Your task to perform on an android device: Add razer nari to the cart on ebay.com, then select checkout. Image 0: 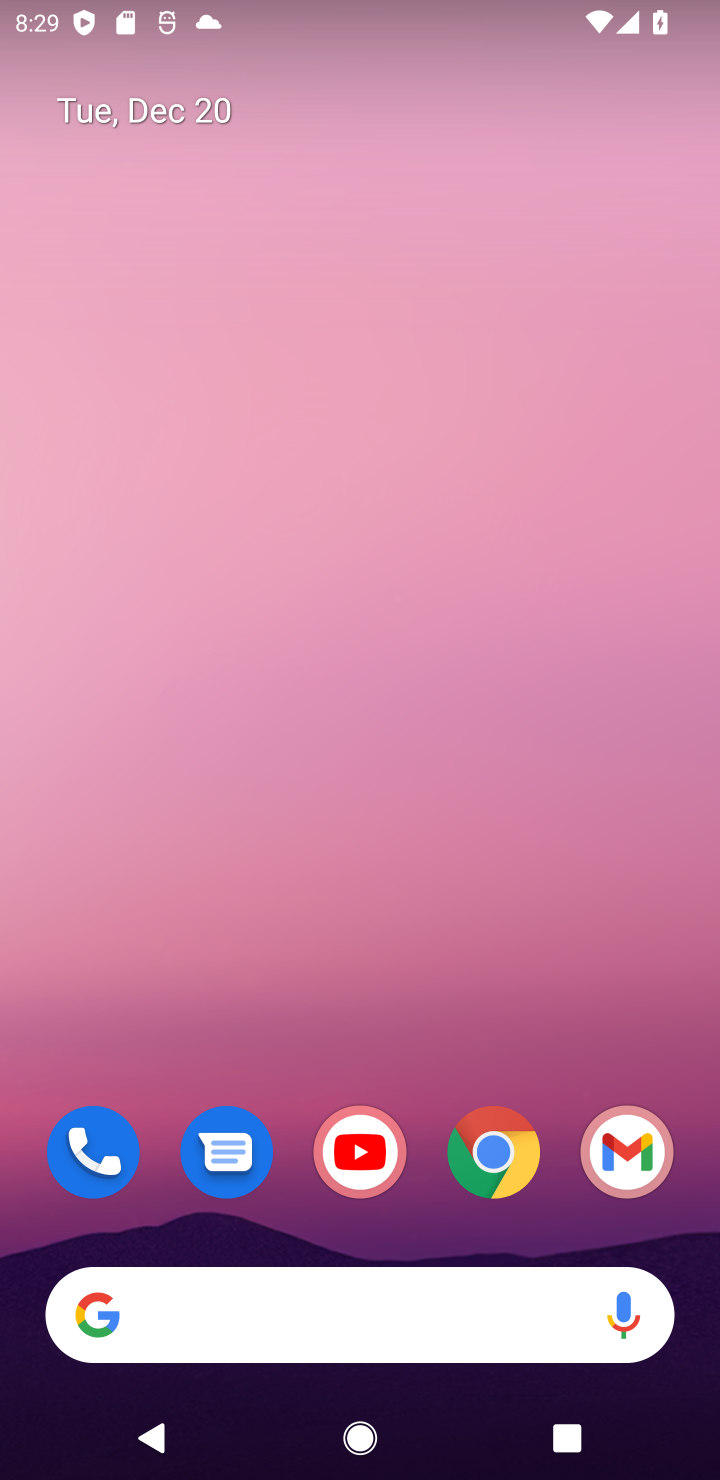
Step 0: click (494, 1176)
Your task to perform on an android device: Add razer nari to the cart on ebay.com, then select checkout. Image 1: 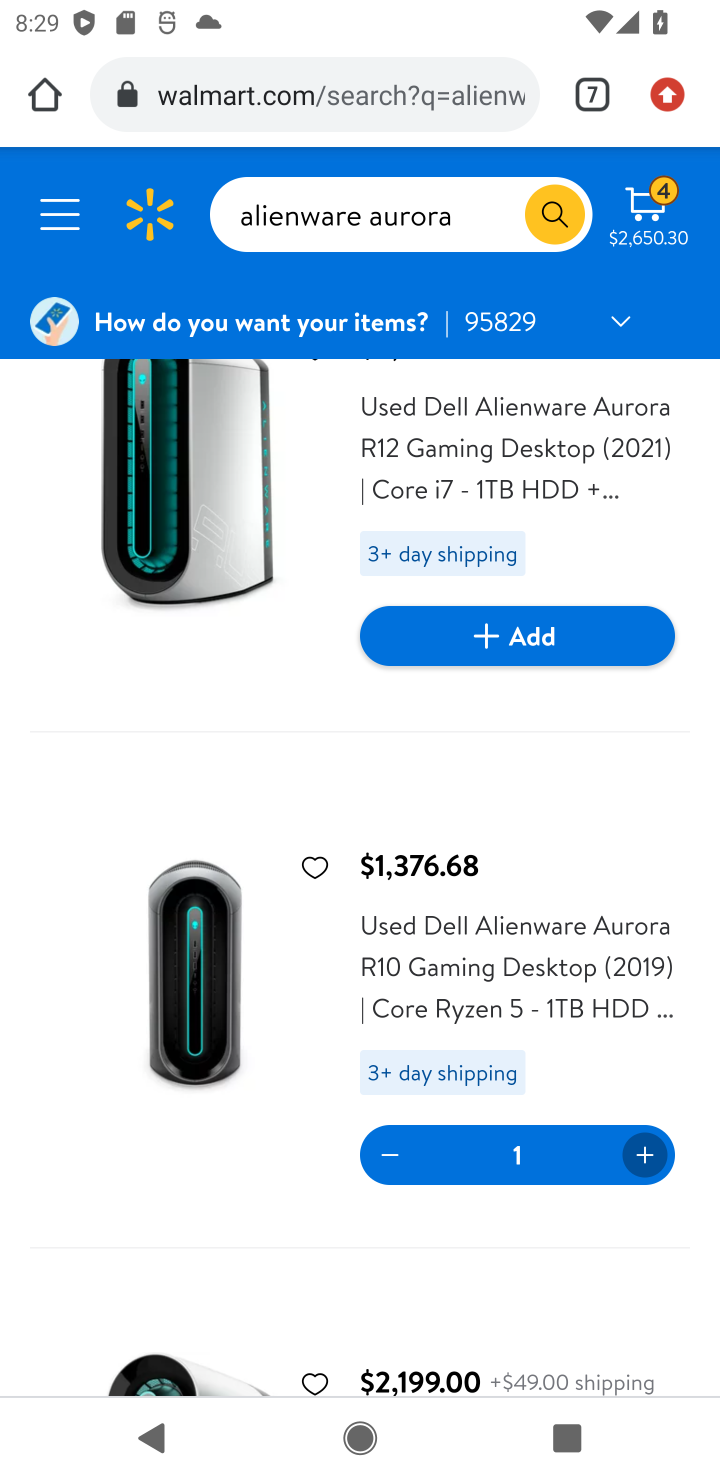
Step 1: click (594, 87)
Your task to perform on an android device: Add razer nari to the cart on ebay.com, then select checkout. Image 2: 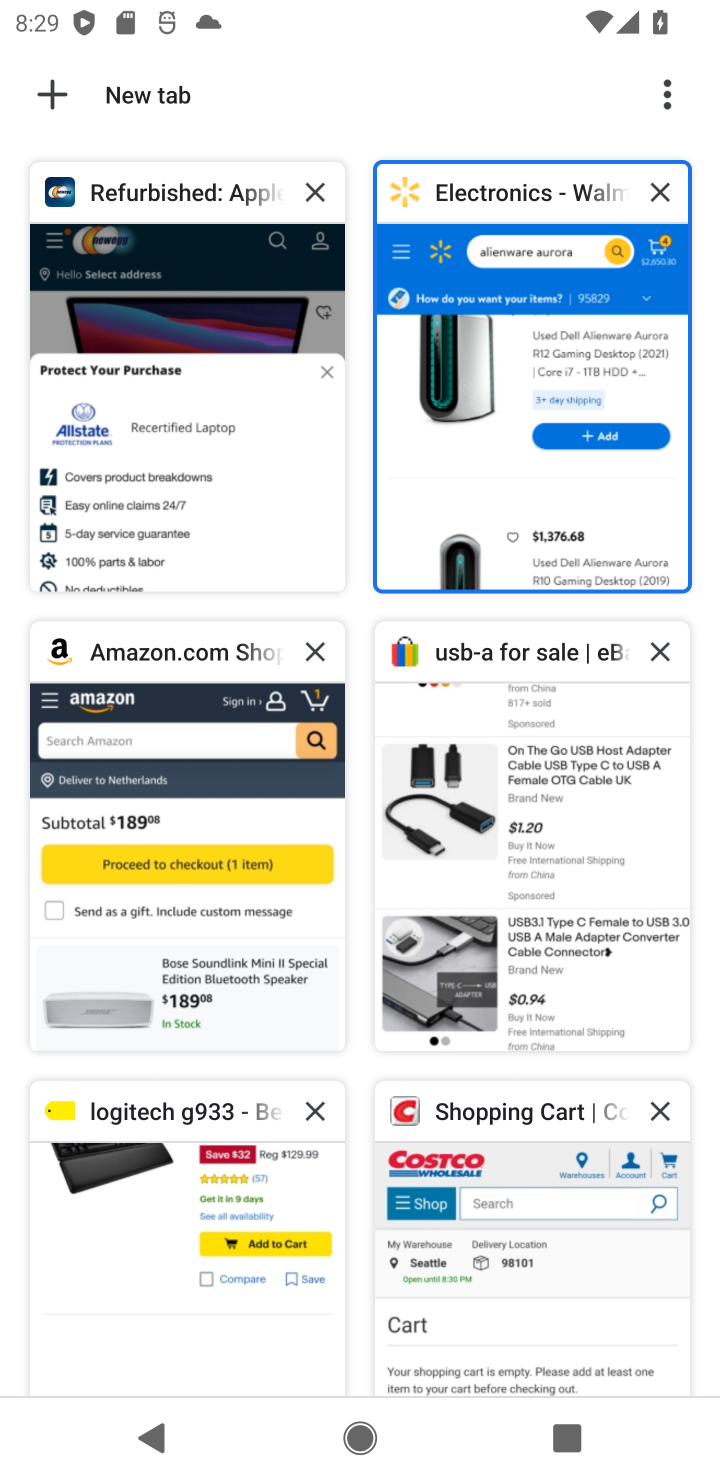
Step 2: click (514, 804)
Your task to perform on an android device: Add razer nari to the cart on ebay.com, then select checkout. Image 3: 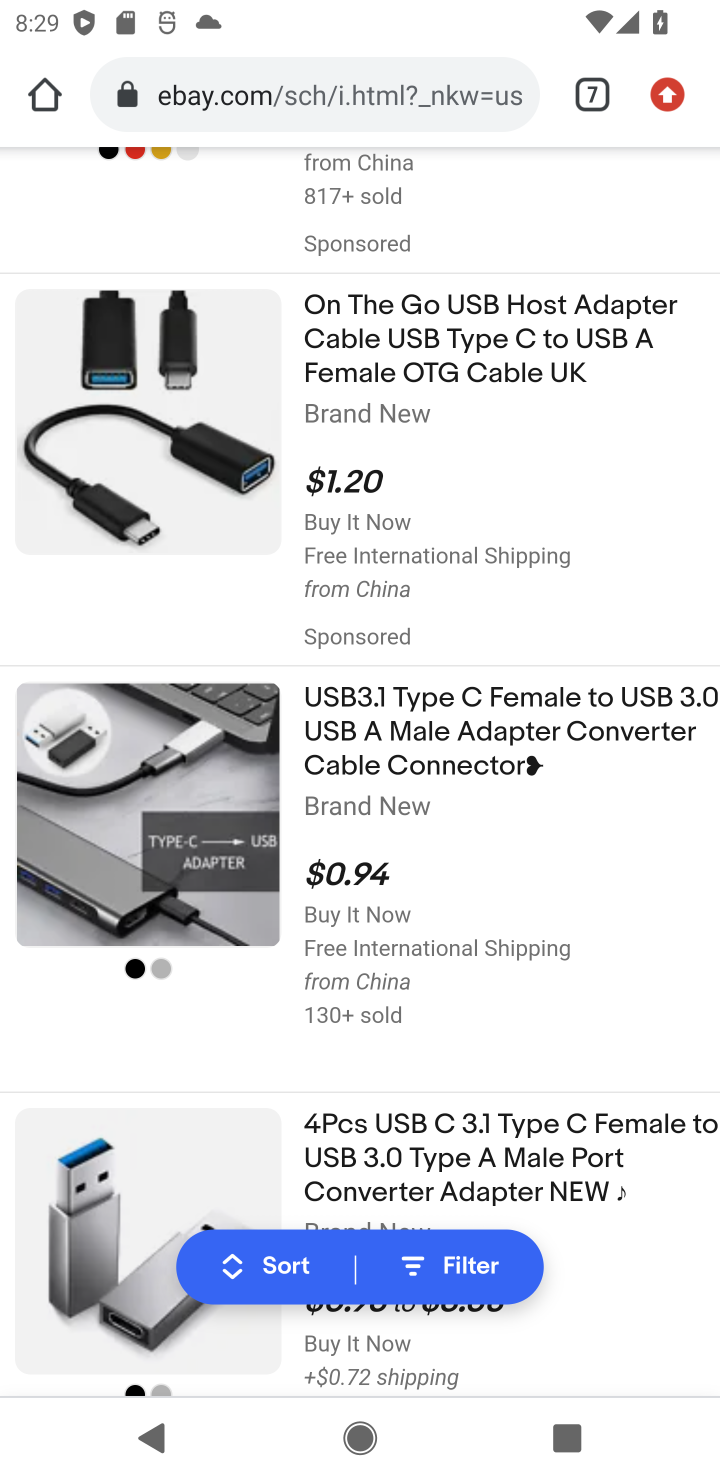
Step 3: drag from (520, 182) to (470, 874)
Your task to perform on an android device: Add razer nari to the cart on ebay.com, then select checkout. Image 4: 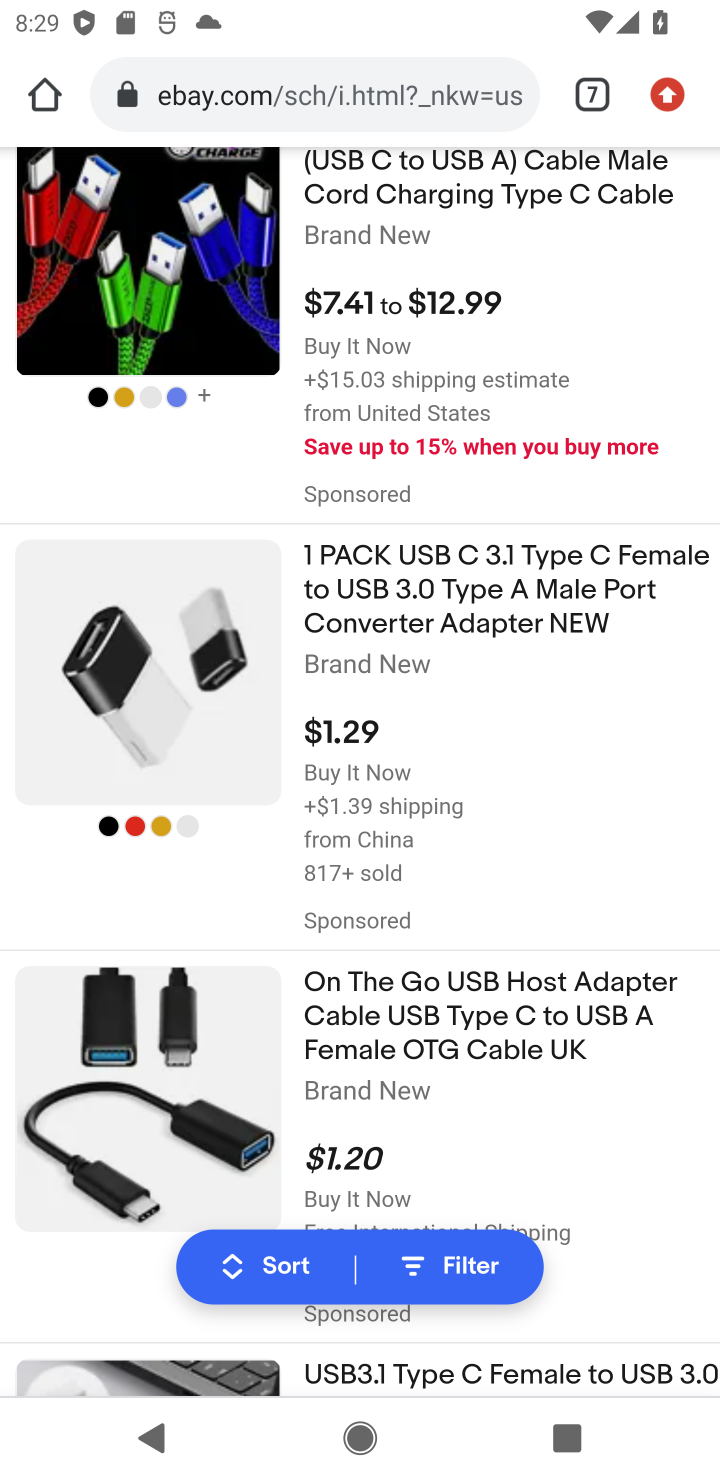
Step 4: drag from (465, 274) to (496, 916)
Your task to perform on an android device: Add razer nari to the cart on ebay.com, then select checkout. Image 5: 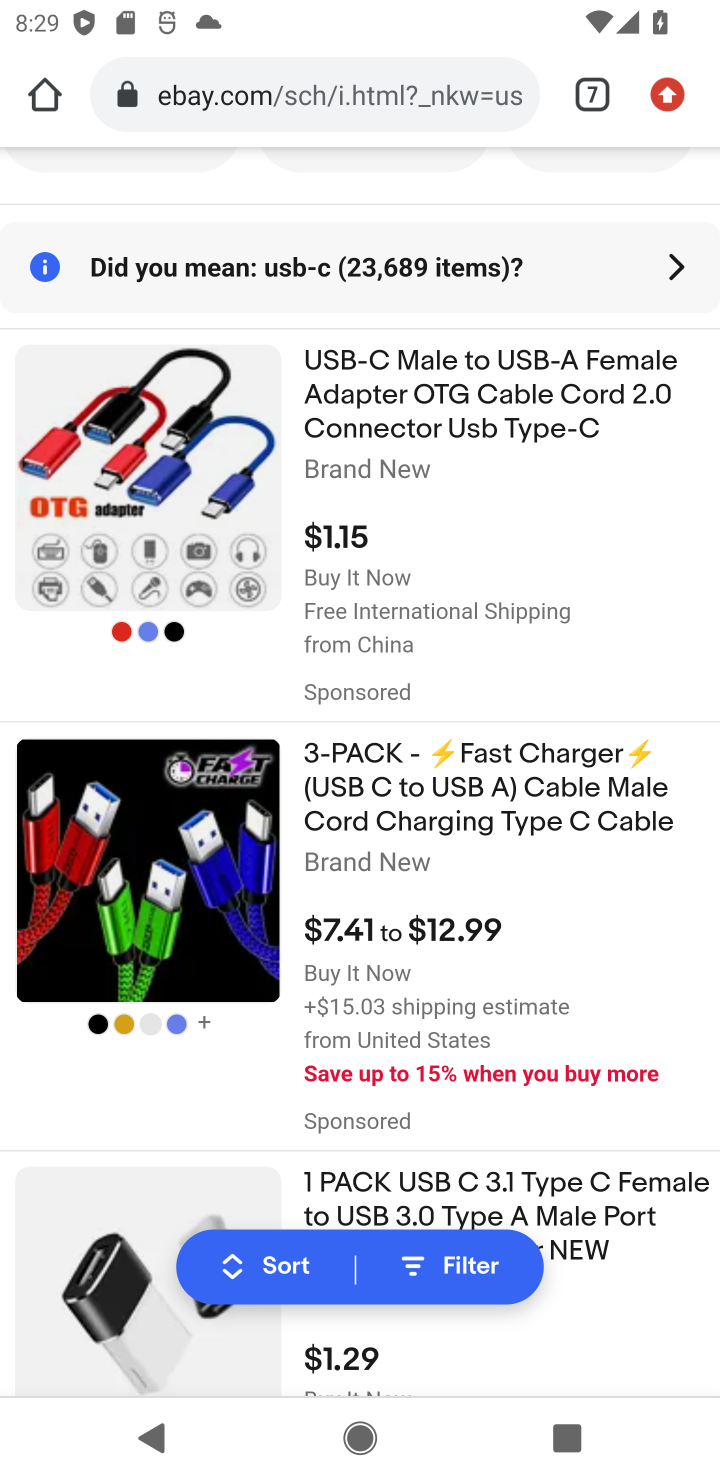
Step 5: drag from (401, 400) to (405, 763)
Your task to perform on an android device: Add razer nari to the cart on ebay.com, then select checkout. Image 6: 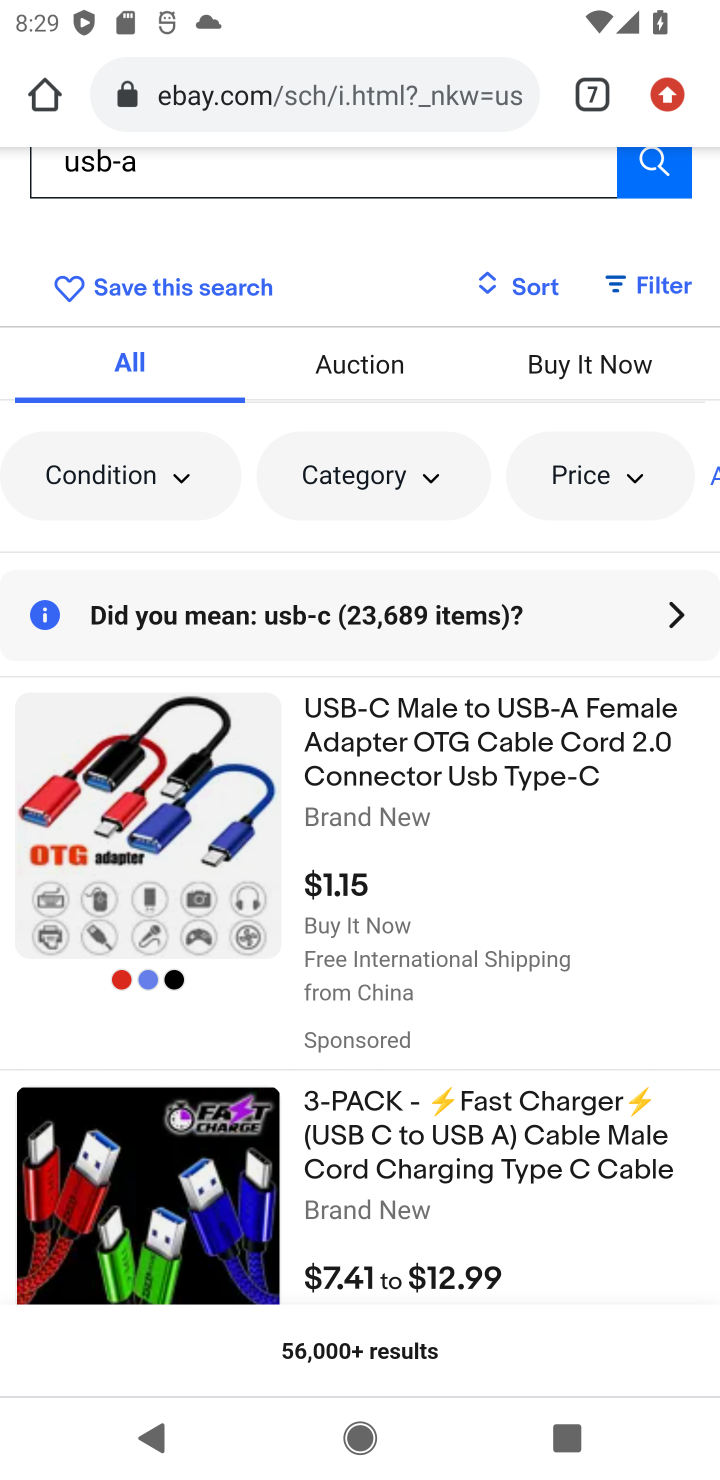
Step 6: drag from (313, 230) to (334, 494)
Your task to perform on an android device: Add razer nari to the cart on ebay.com, then select checkout. Image 7: 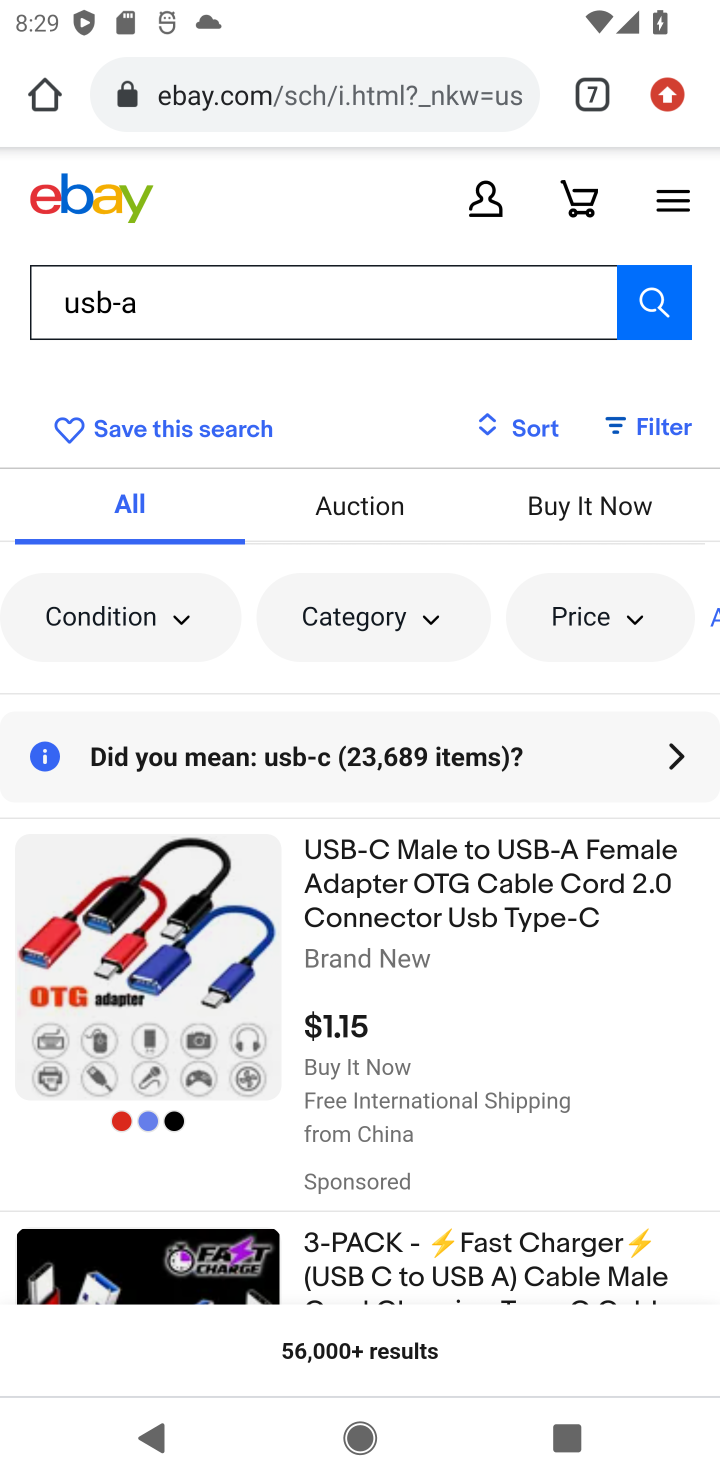
Step 7: click (218, 309)
Your task to perform on an android device: Add razer nari to the cart on ebay.com, then select checkout. Image 8: 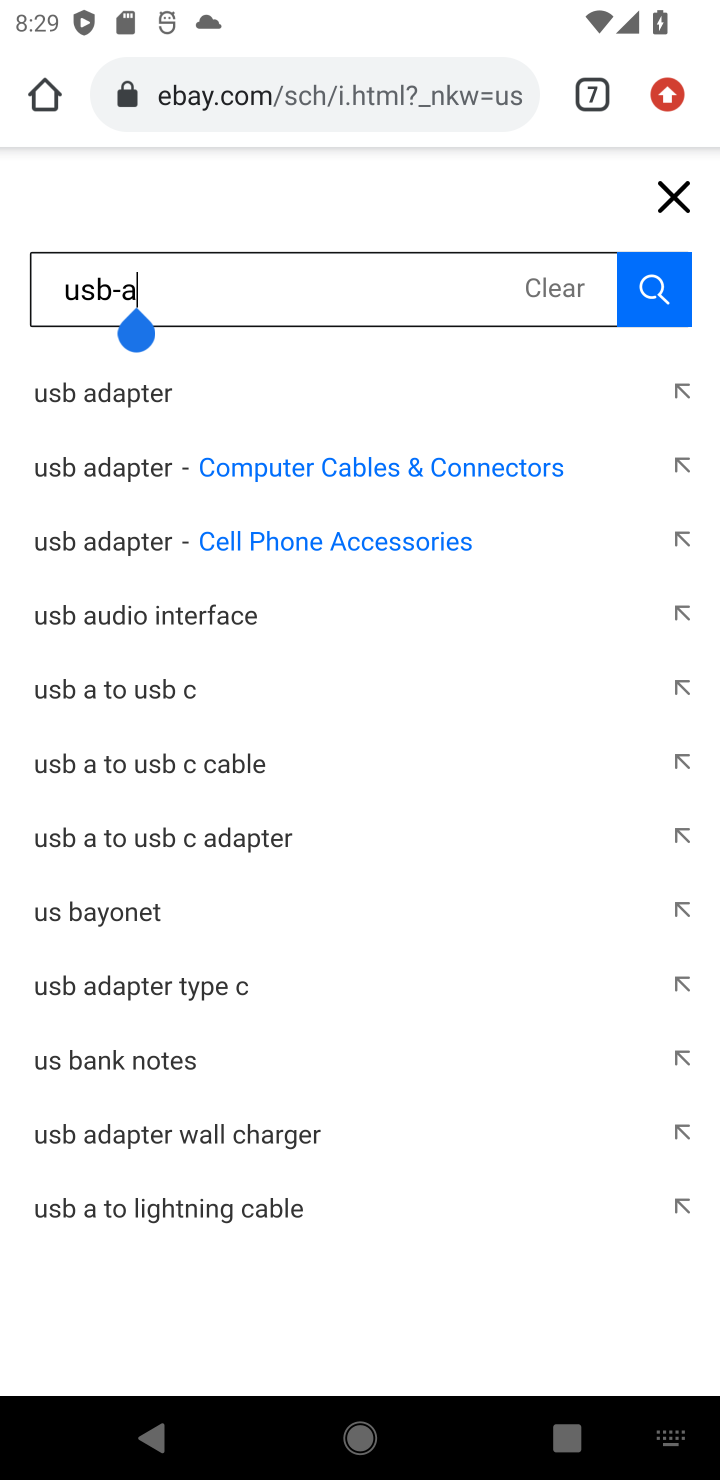
Step 8: click (558, 292)
Your task to perform on an android device: Add razer nari to the cart on ebay.com, then select checkout. Image 9: 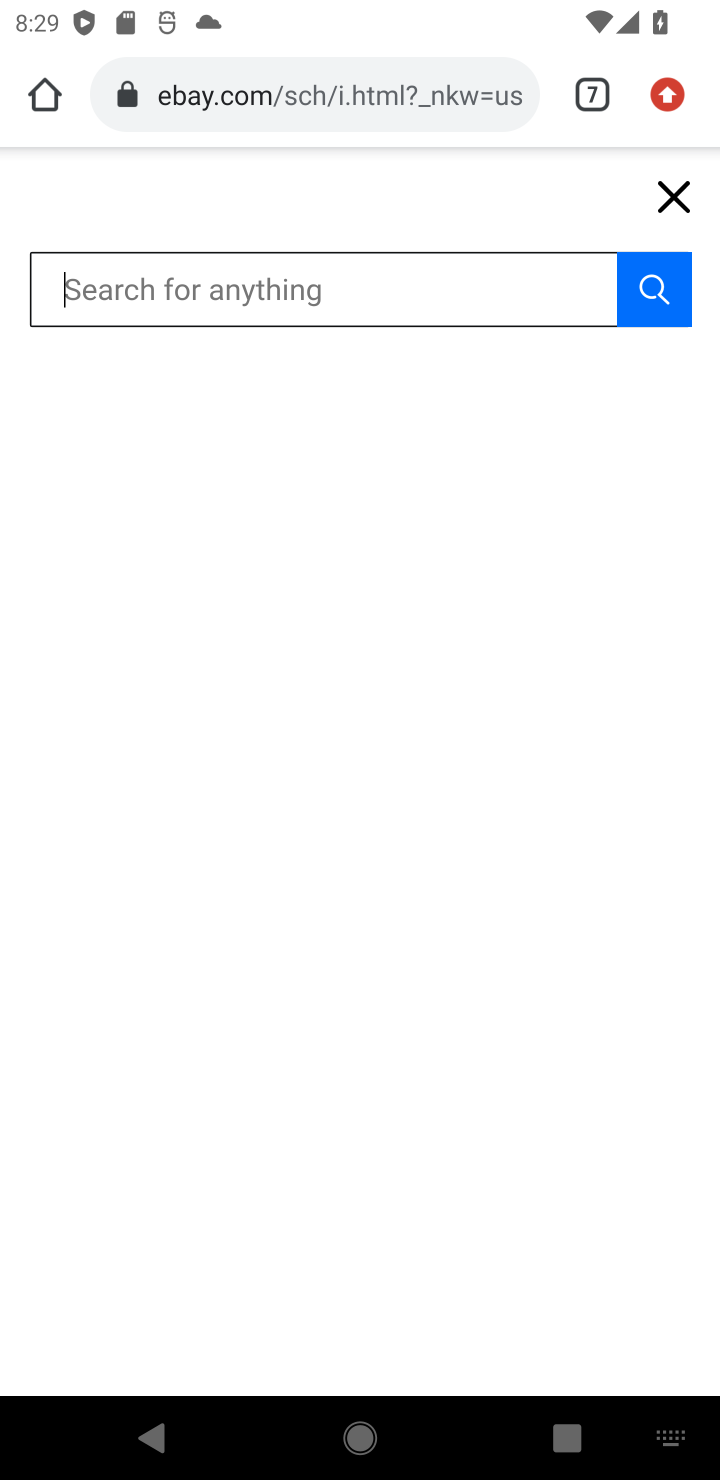
Step 9: type "razer nari "
Your task to perform on an android device: Add razer nari to the cart on ebay.com, then select checkout. Image 10: 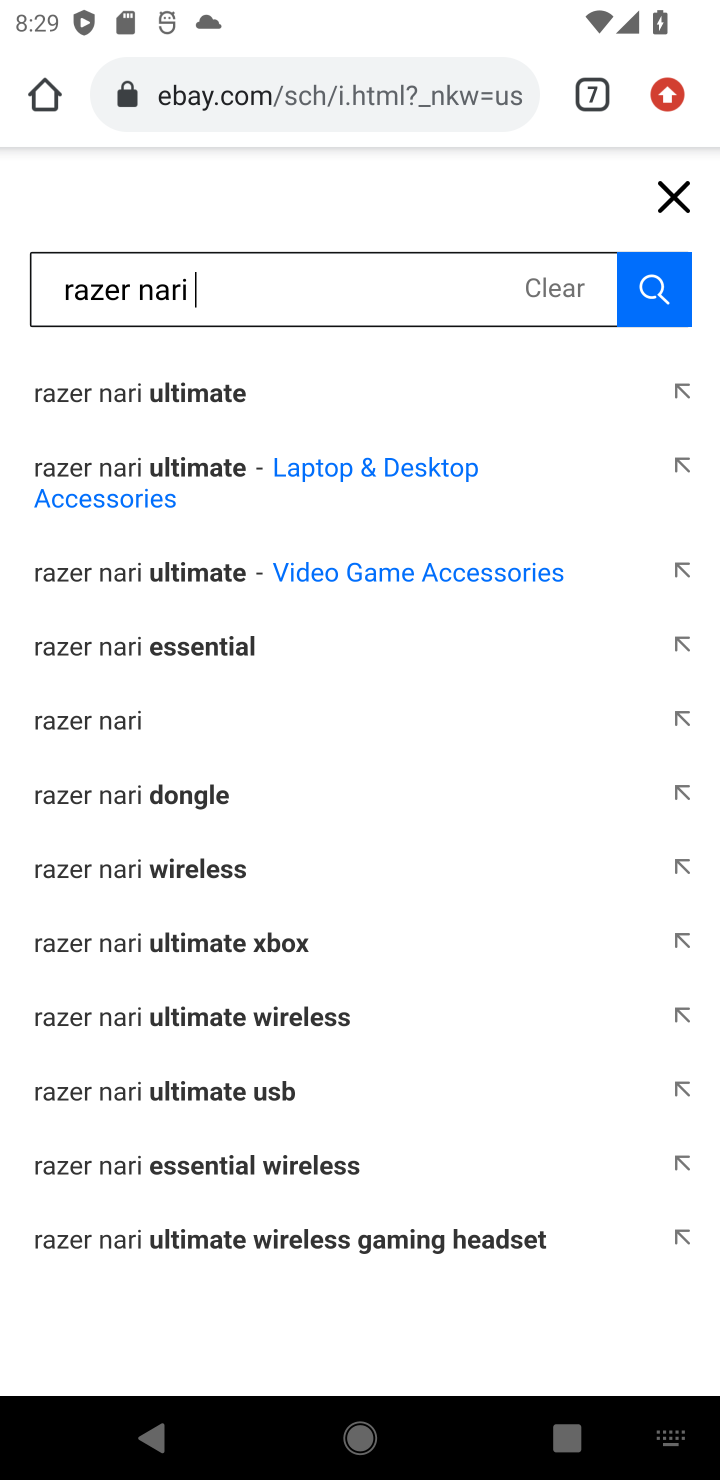
Step 10: click (130, 467)
Your task to perform on an android device: Add razer nari to the cart on ebay.com, then select checkout. Image 11: 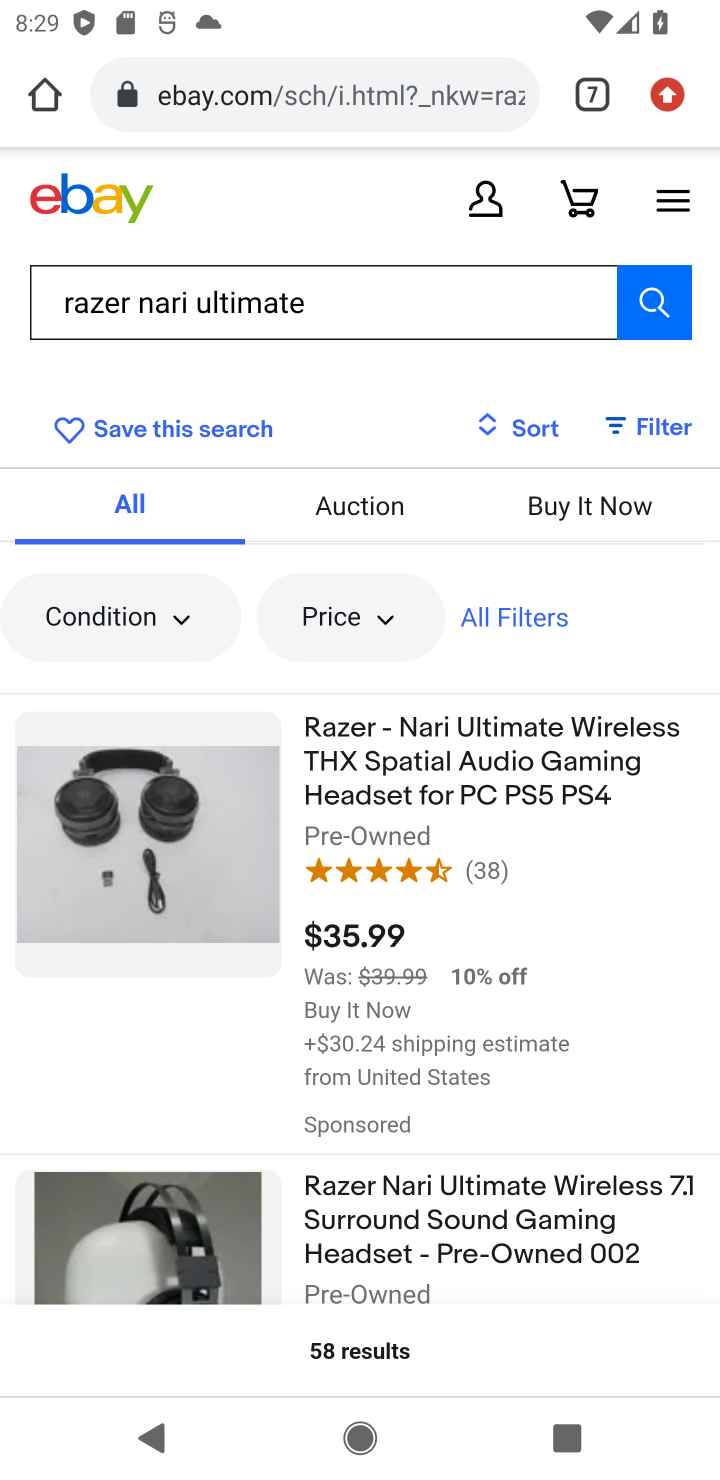
Step 11: click (449, 785)
Your task to perform on an android device: Add razer nari to the cart on ebay.com, then select checkout. Image 12: 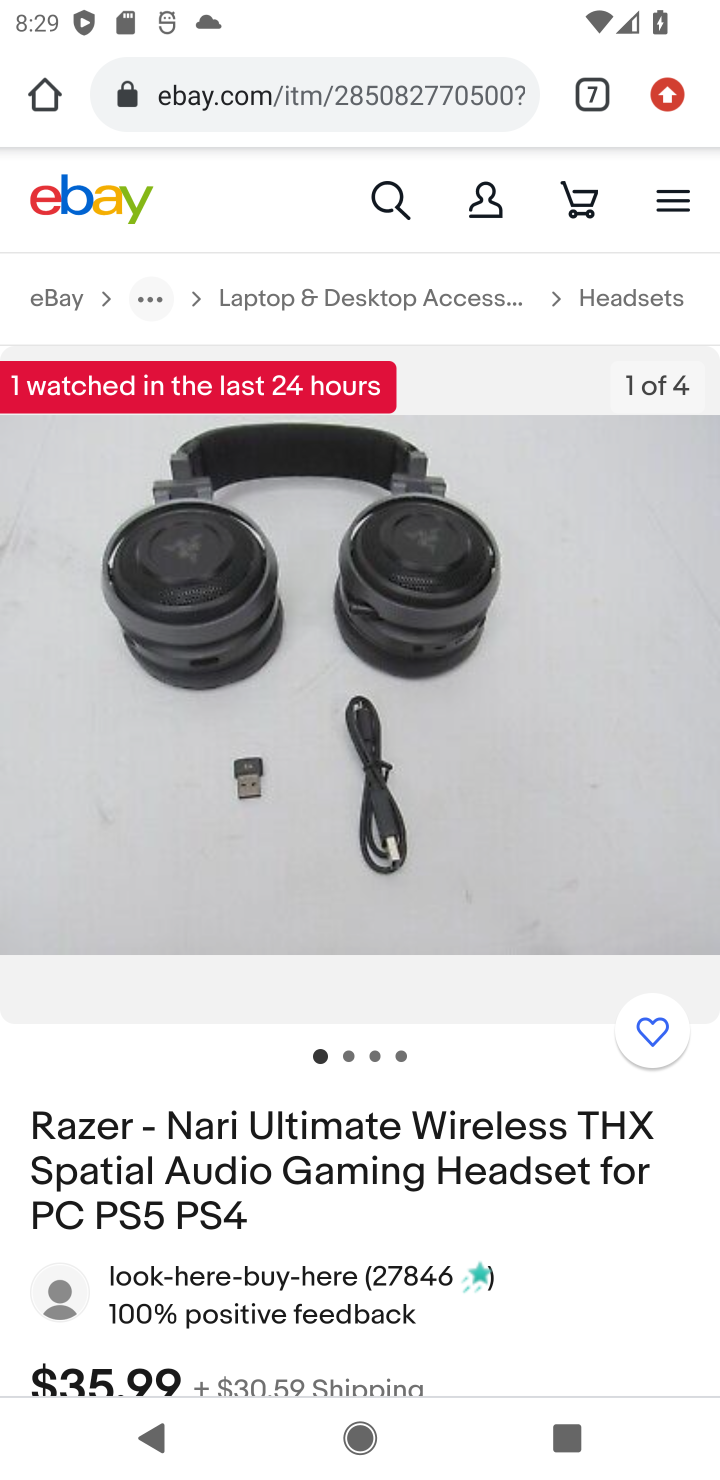
Step 12: drag from (457, 1092) to (471, 529)
Your task to perform on an android device: Add razer nari to the cart on ebay.com, then select checkout. Image 13: 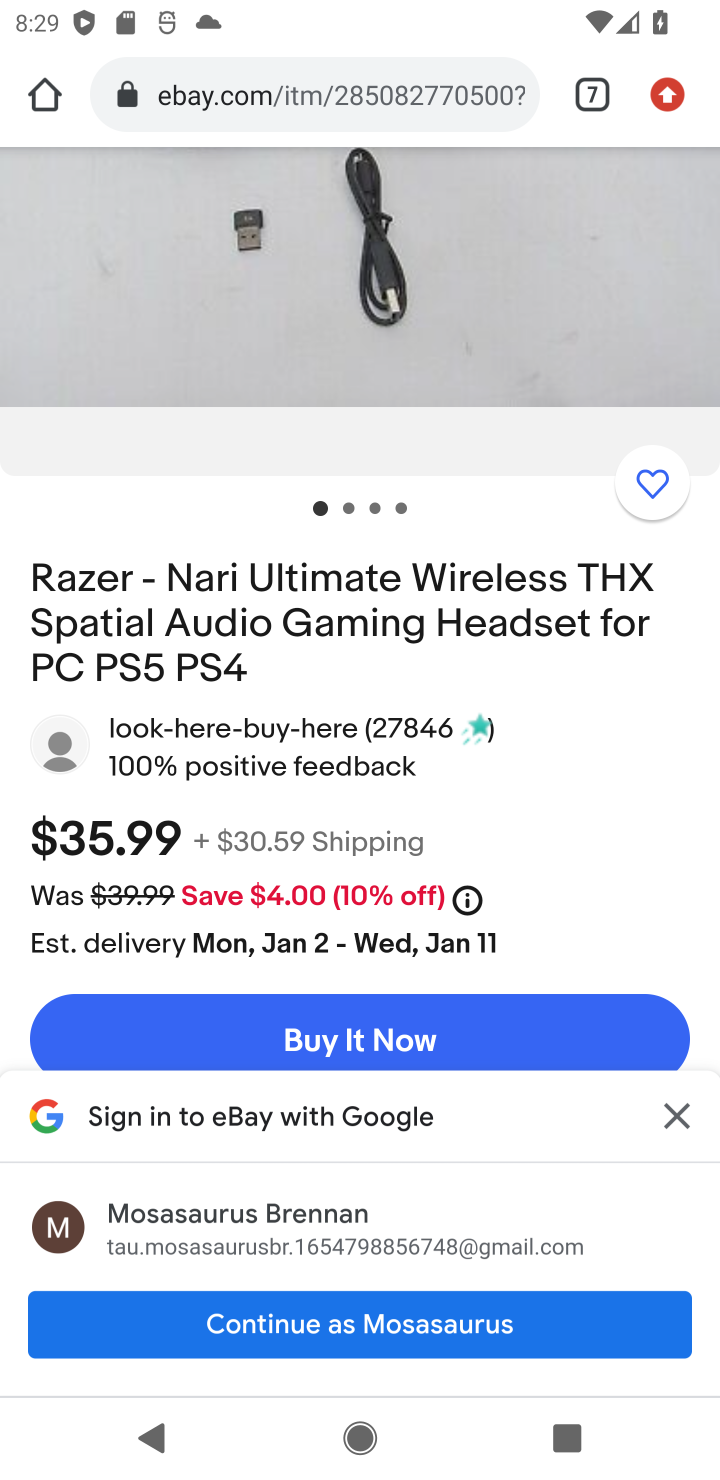
Step 13: click (665, 1110)
Your task to perform on an android device: Add razer nari to the cart on ebay.com, then select checkout. Image 14: 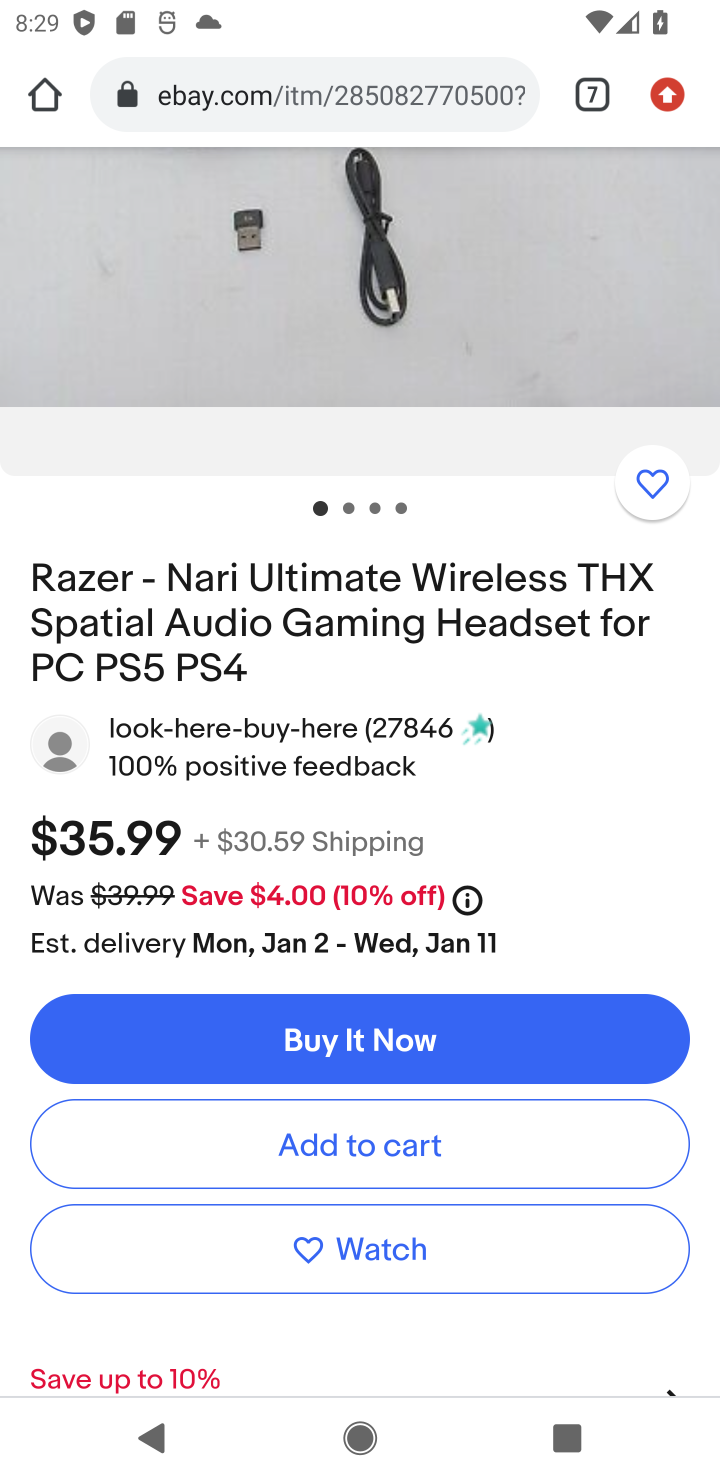
Step 14: click (336, 1144)
Your task to perform on an android device: Add razer nari to the cart on ebay.com, then select checkout. Image 15: 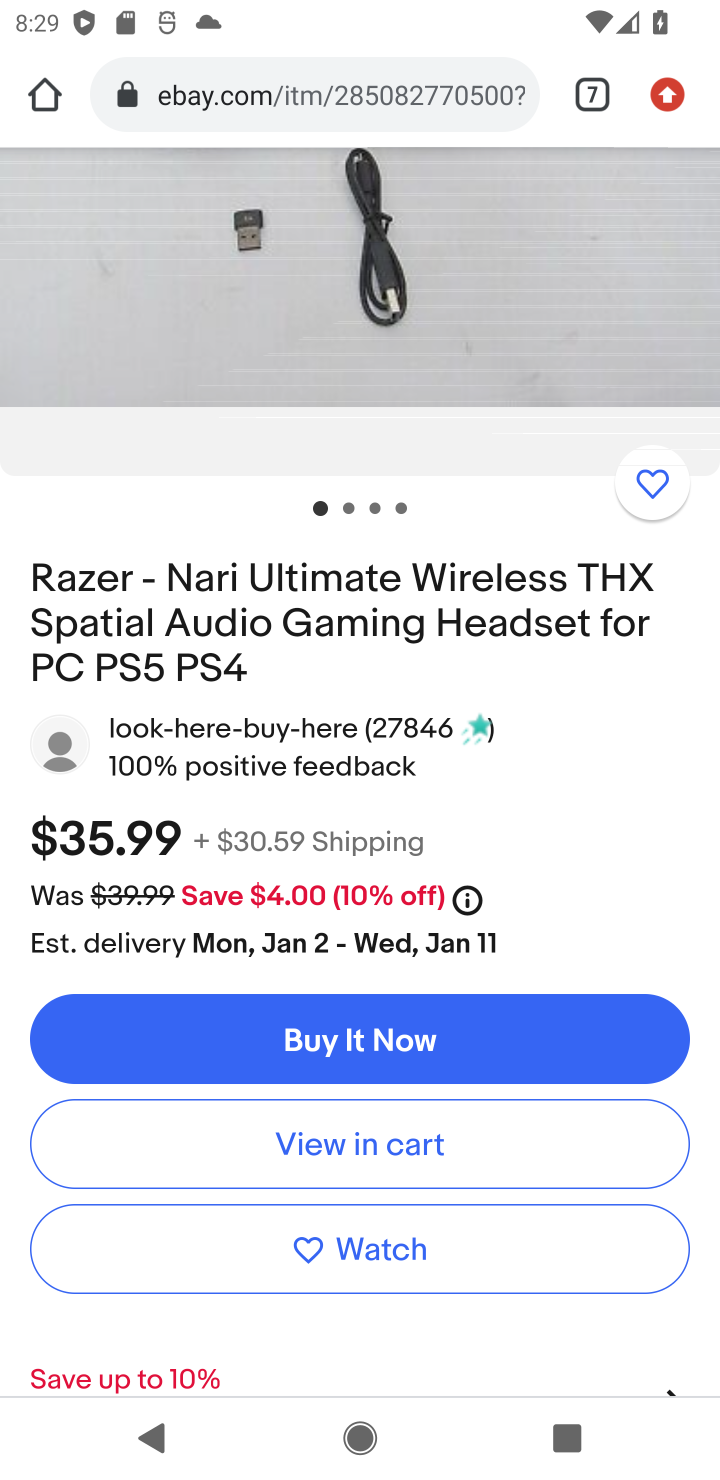
Step 15: task complete